Your task to perform on an android device: refresh tabs in the chrome app Image 0: 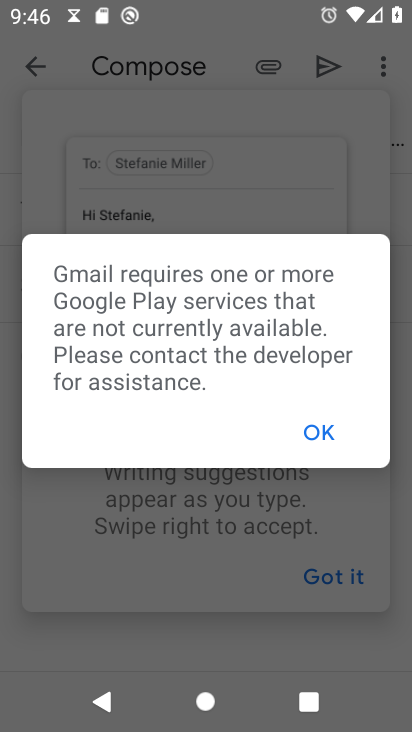
Step 0: press home button
Your task to perform on an android device: refresh tabs in the chrome app Image 1: 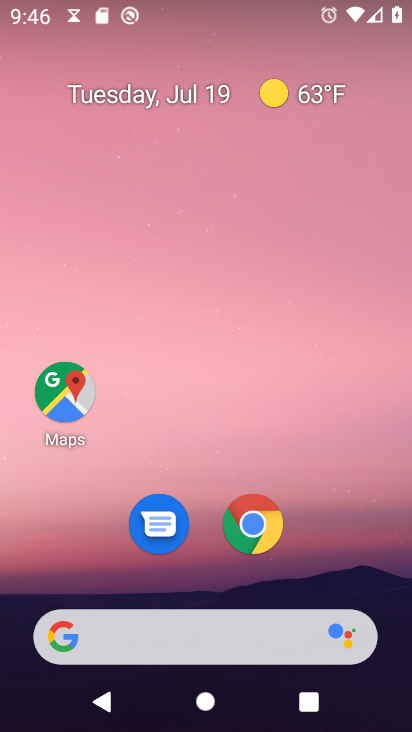
Step 1: click (264, 511)
Your task to perform on an android device: refresh tabs in the chrome app Image 2: 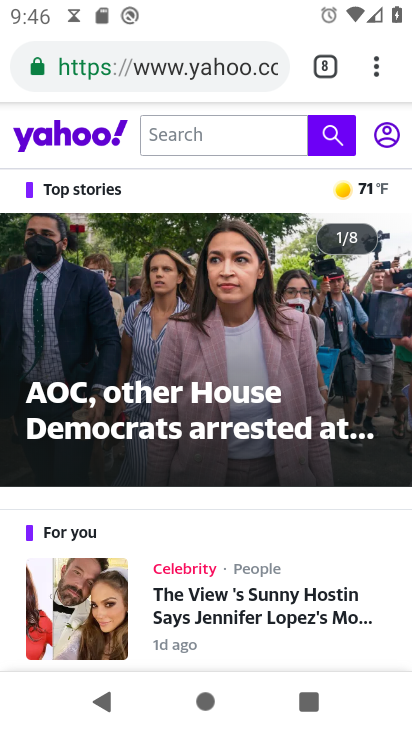
Step 2: click (373, 88)
Your task to perform on an android device: refresh tabs in the chrome app Image 3: 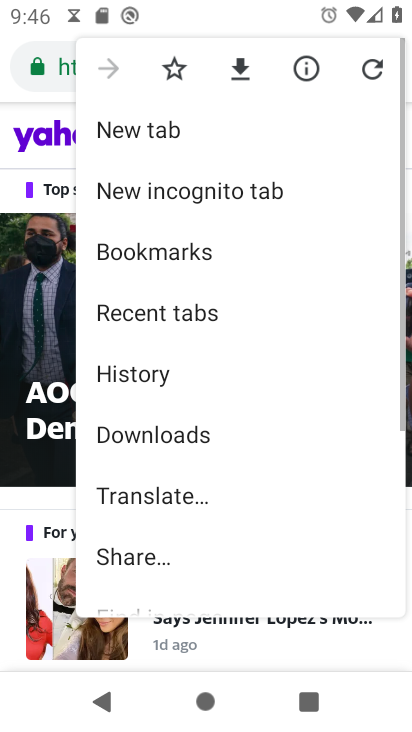
Step 3: click (376, 75)
Your task to perform on an android device: refresh tabs in the chrome app Image 4: 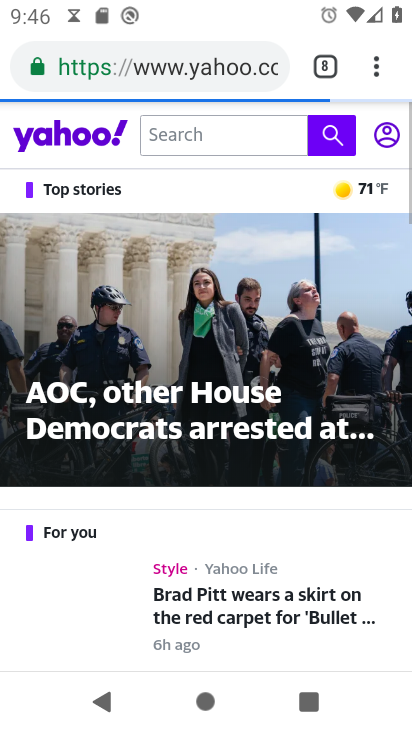
Step 4: task complete